Your task to perform on an android device: Open Yahoo.com Image 0: 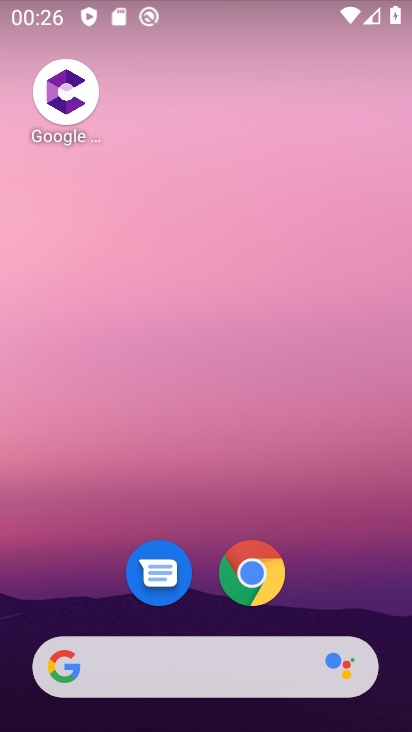
Step 0: click (254, 568)
Your task to perform on an android device: Open Yahoo.com Image 1: 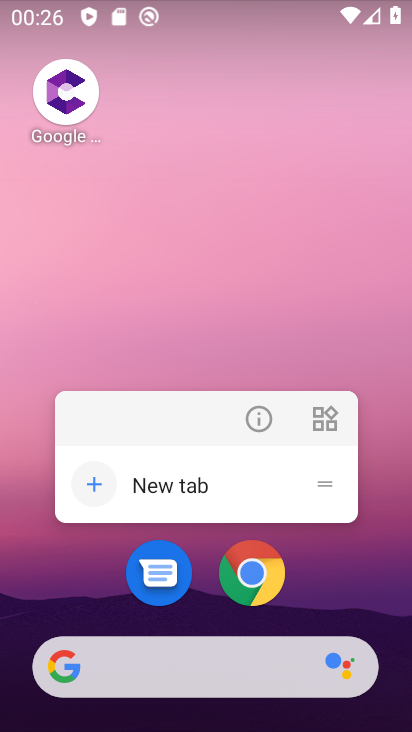
Step 1: click (253, 566)
Your task to perform on an android device: Open Yahoo.com Image 2: 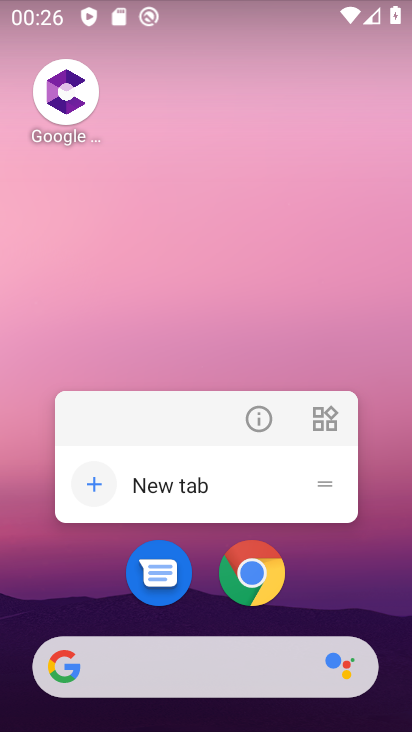
Step 2: click (253, 566)
Your task to perform on an android device: Open Yahoo.com Image 3: 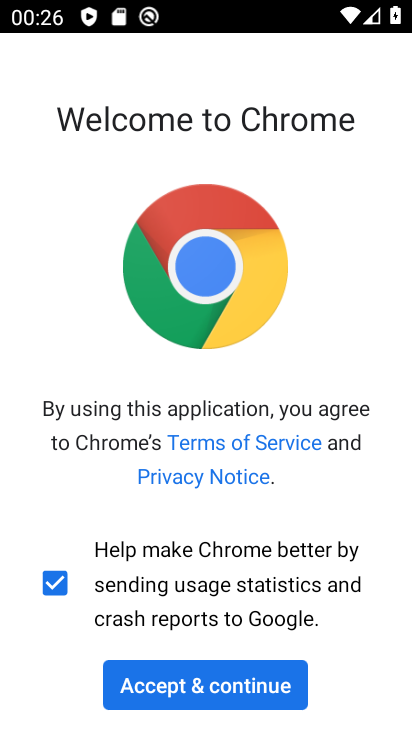
Step 3: click (222, 688)
Your task to perform on an android device: Open Yahoo.com Image 4: 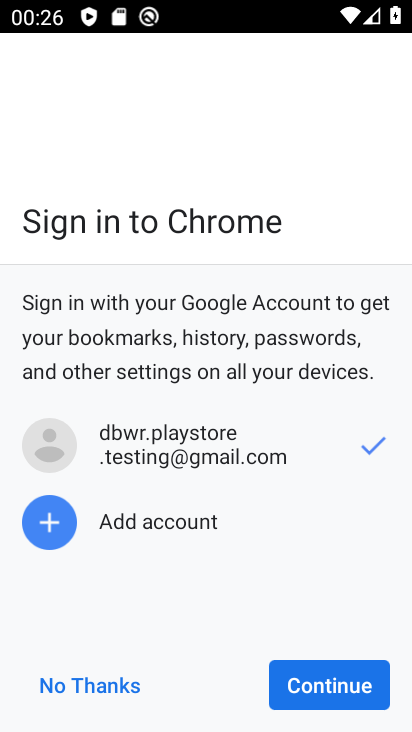
Step 4: click (347, 685)
Your task to perform on an android device: Open Yahoo.com Image 5: 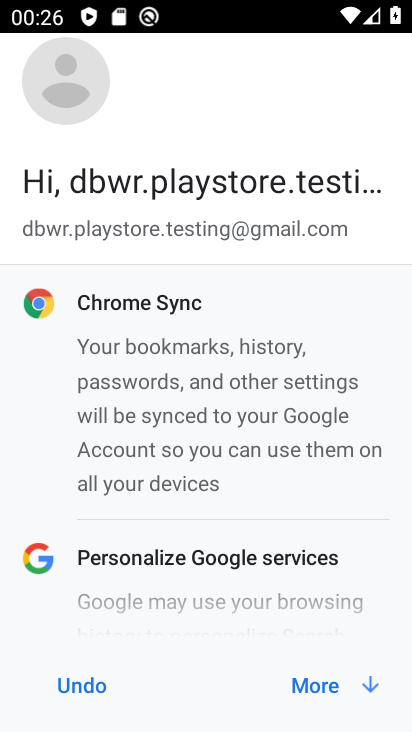
Step 5: click (345, 685)
Your task to perform on an android device: Open Yahoo.com Image 6: 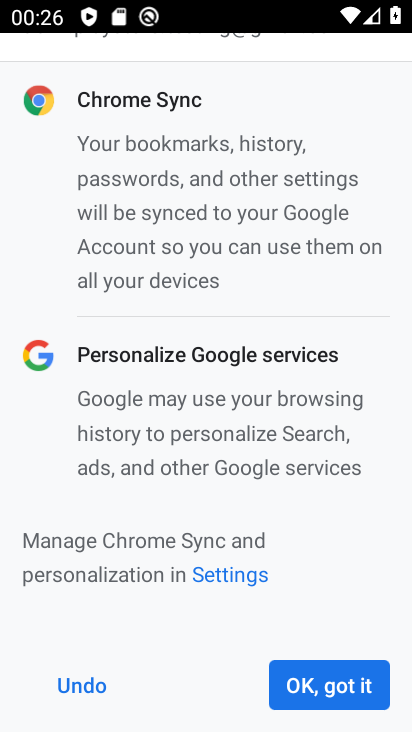
Step 6: click (345, 685)
Your task to perform on an android device: Open Yahoo.com Image 7: 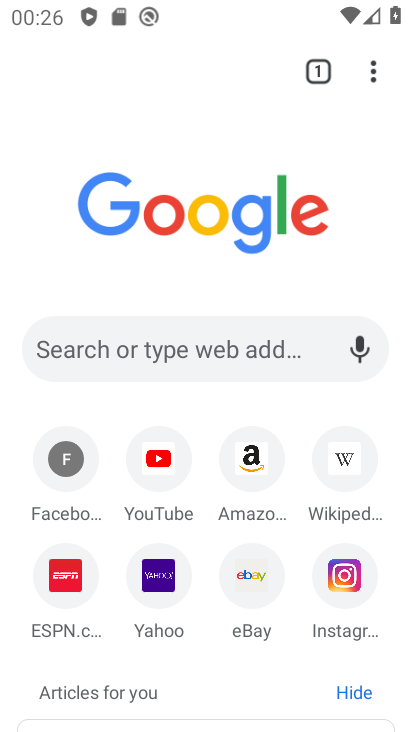
Step 7: click (164, 592)
Your task to perform on an android device: Open Yahoo.com Image 8: 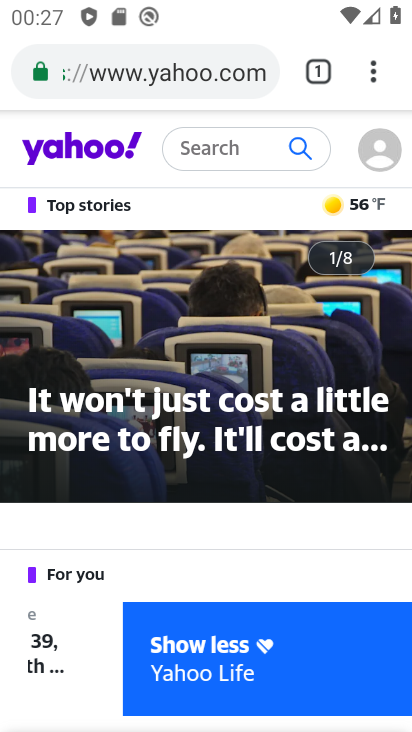
Step 8: task complete